Your task to perform on an android device: make emails show in primary in the gmail app Image 0: 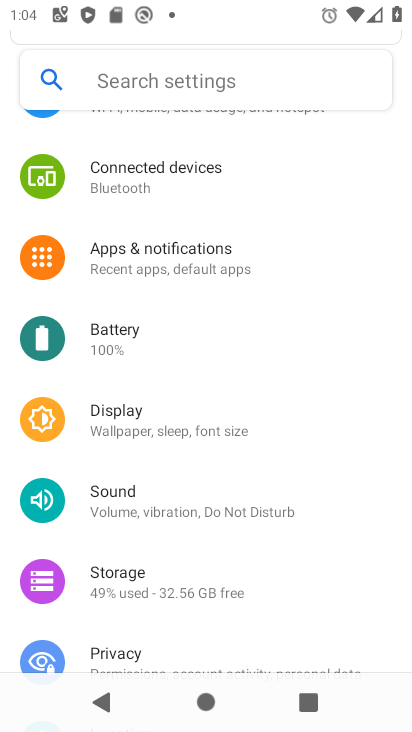
Step 0: press home button
Your task to perform on an android device: make emails show in primary in the gmail app Image 1: 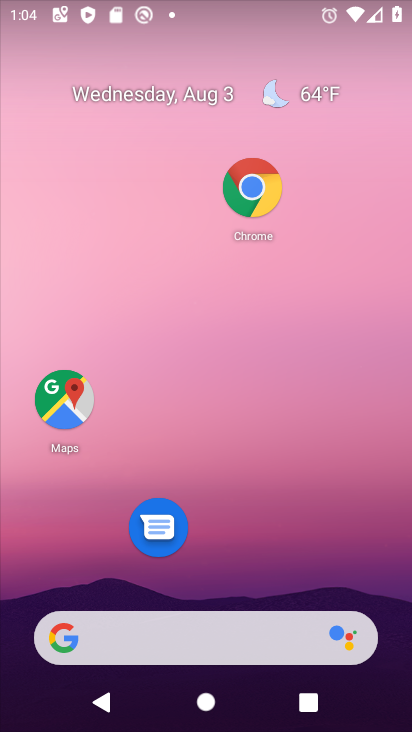
Step 1: drag from (243, 569) to (254, 43)
Your task to perform on an android device: make emails show in primary in the gmail app Image 2: 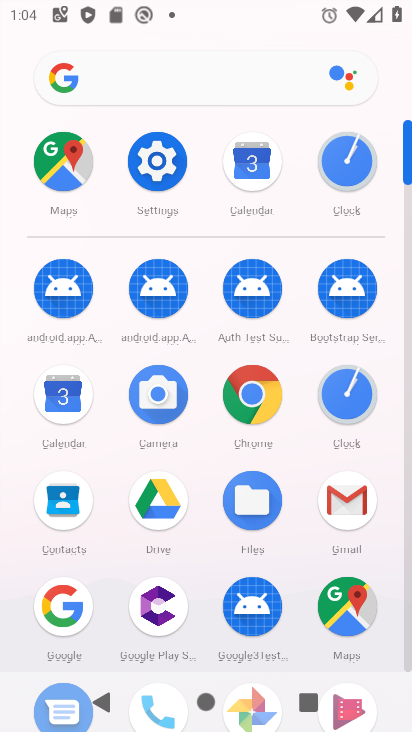
Step 2: click (341, 517)
Your task to perform on an android device: make emails show in primary in the gmail app Image 3: 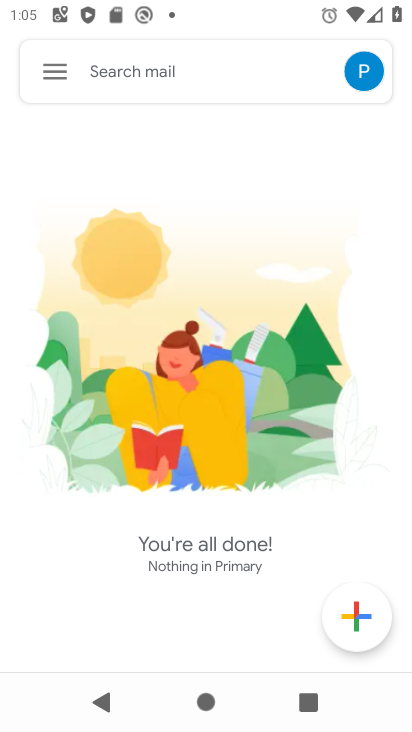
Step 3: click (52, 82)
Your task to perform on an android device: make emails show in primary in the gmail app Image 4: 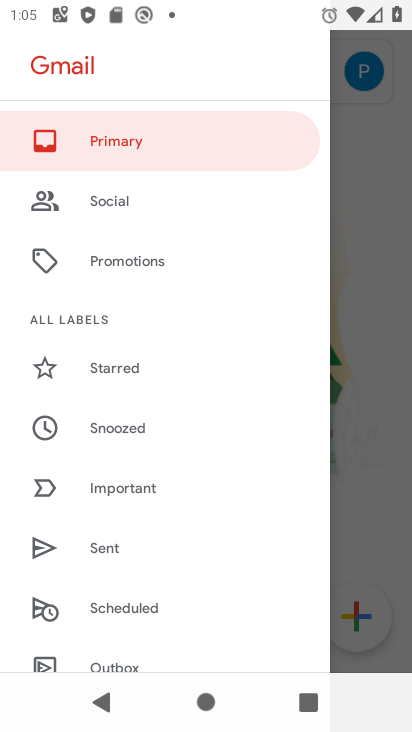
Step 4: drag from (117, 566) to (133, 0)
Your task to perform on an android device: make emails show in primary in the gmail app Image 5: 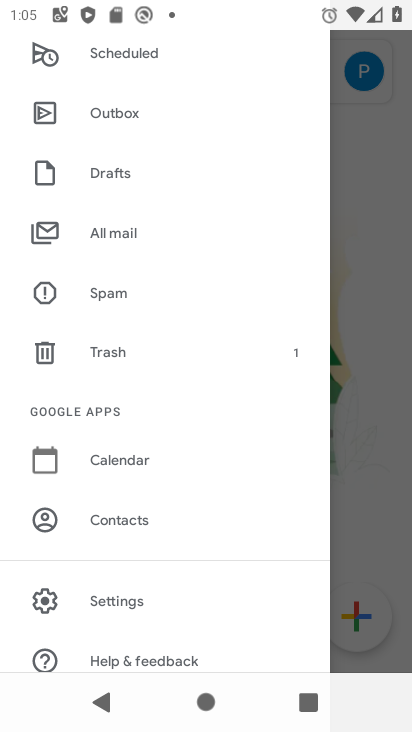
Step 5: click (126, 608)
Your task to perform on an android device: make emails show in primary in the gmail app Image 6: 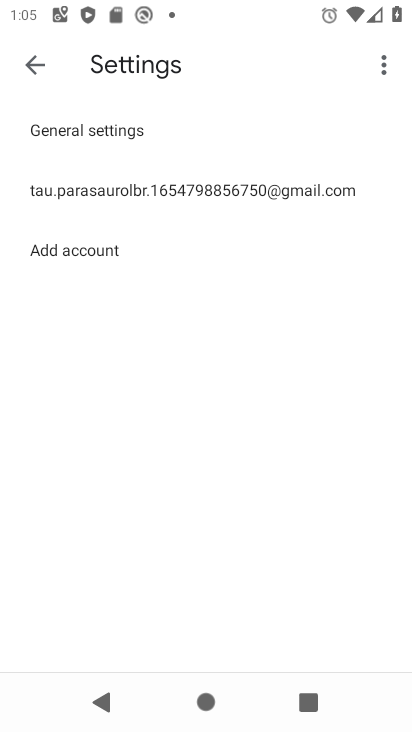
Step 6: click (196, 193)
Your task to perform on an android device: make emails show in primary in the gmail app Image 7: 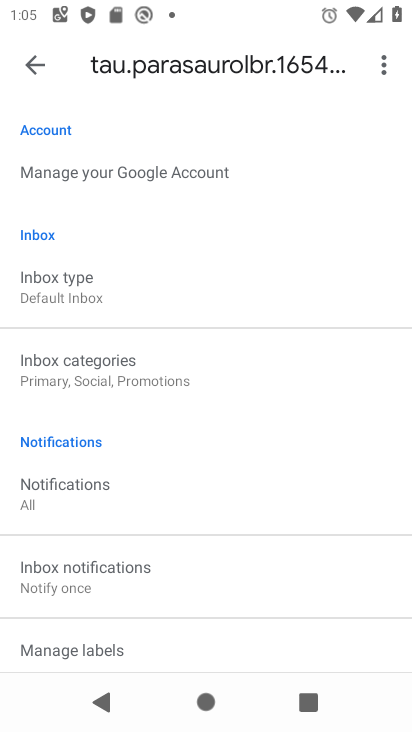
Step 7: click (75, 362)
Your task to perform on an android device: make emails show in primary in the gmail app Image 8: 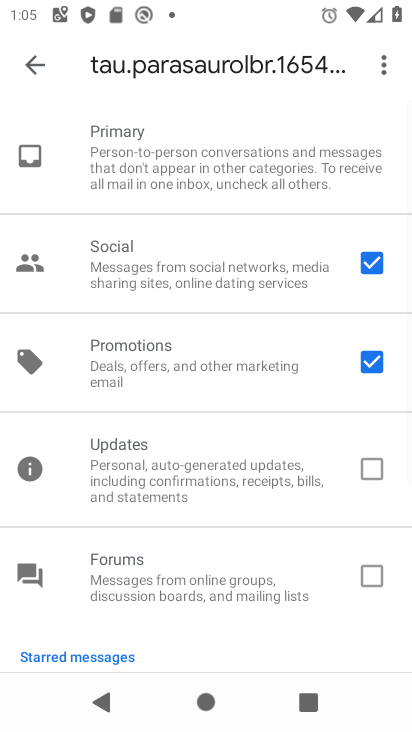
Step 8: click (379, 268)
Your task to perform on an android device: make emails show in primary in the gmail app Image 9: 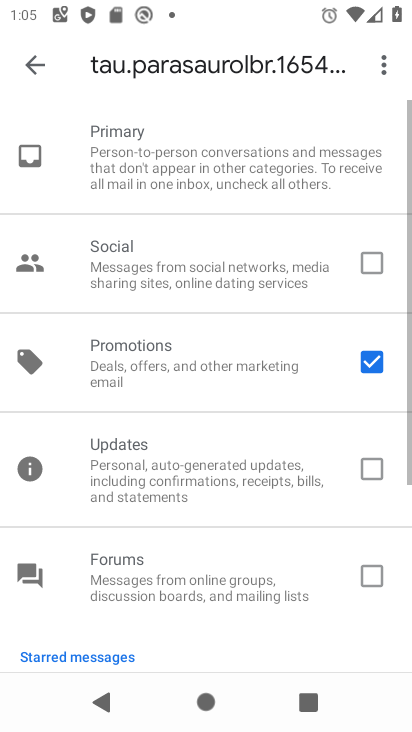
Step 9: click (368, 366)
Your task to perform on an android device: make emails show in primary in the gmail app Image 10: 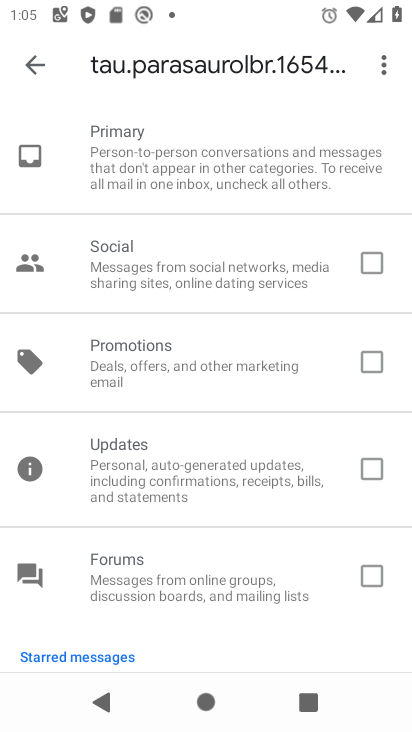
Step 10: task complete